Your task to perform on an android device: check google app version Image 0: 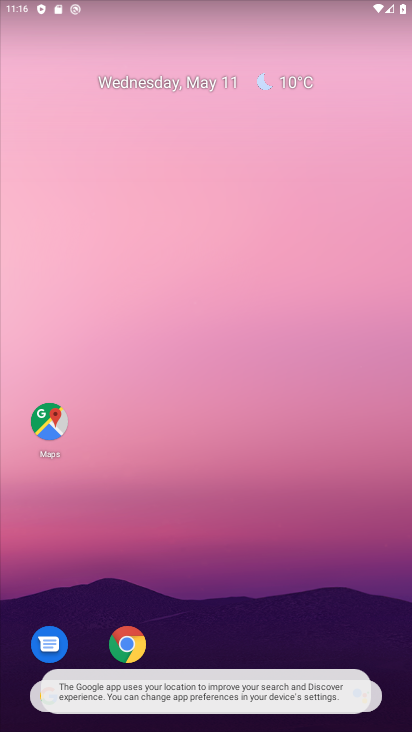
Step 0: drag from (259, 522) to (14, 365)
Your task to perform on an android device: check google app version Image 1: 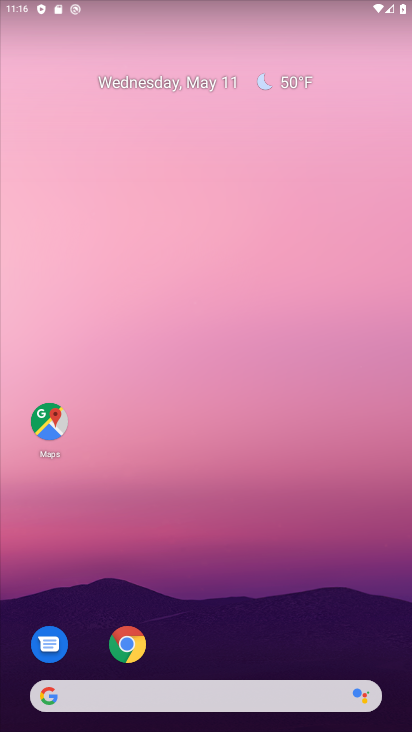
Step 1: drag from (380, 543) to (335, 245)
Your task to perform on an android device: check google app version Image 2: 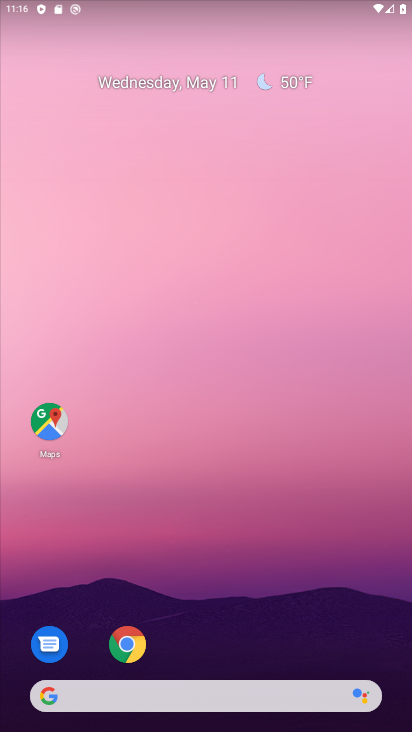
Step 2: drag from (241, 494) to (42, 109)
Your task to perform on an android device: check google app version Image 3: 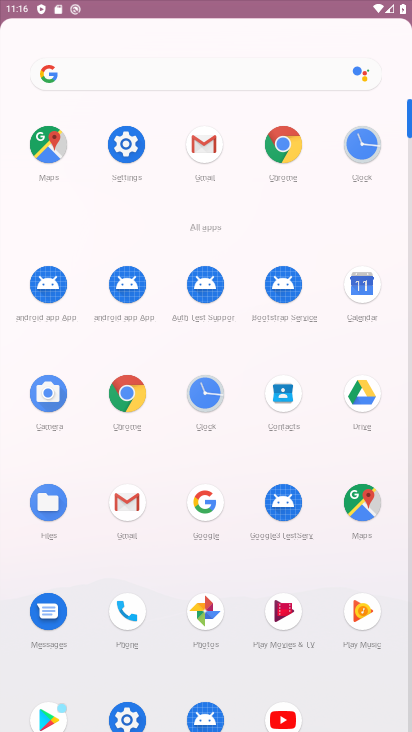
Step 3: drag from (354, 370) to (352, 126)
Your task to perform on an android device: check google app version Image 4: 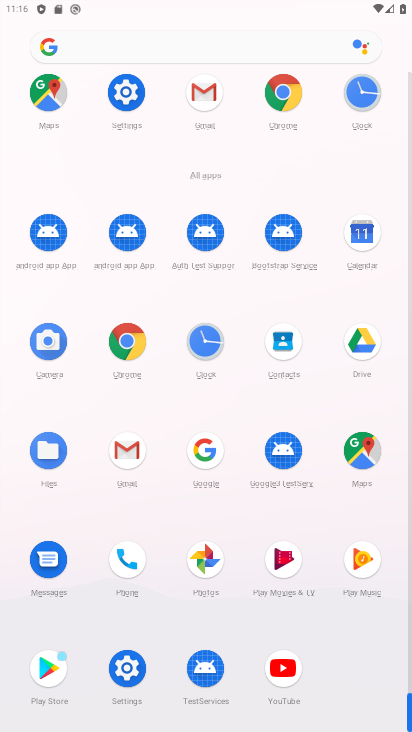
Step 4: click (208, 461)
Your task to perform on an android device: check google app version Image 5: 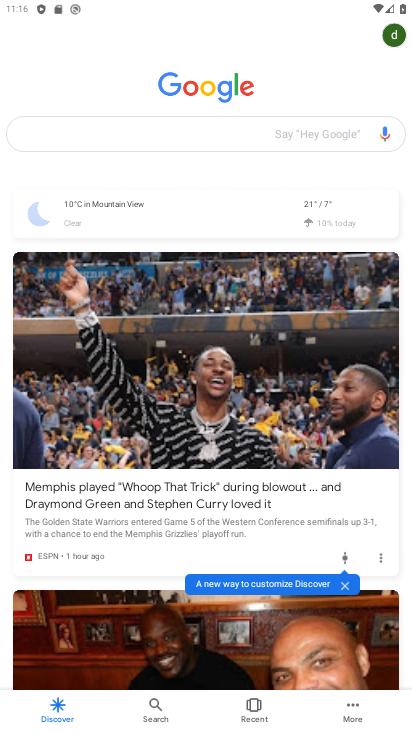
Step 5: click (358, 713)
Your task to perform on an android device: check google app version Image 6: 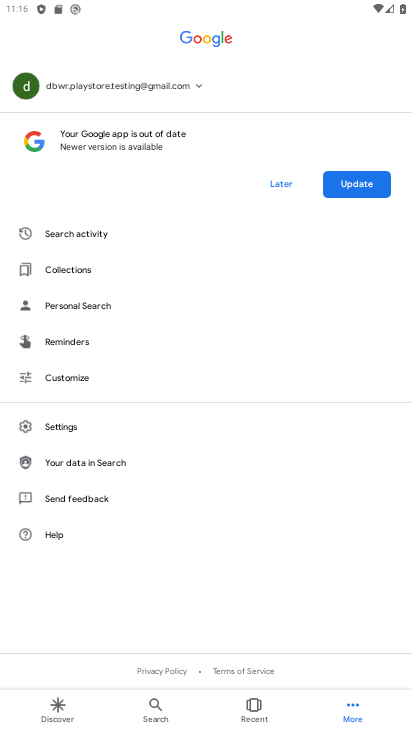
Step 6: click (78, 421)
Your task to perform on an android device: check google app version Image 7: 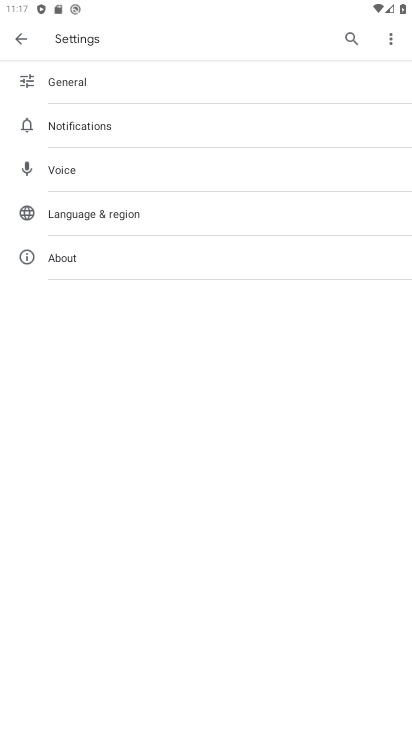
Step 7: click (118, 258)
Your task to perform on an android device: check google app version Image 8: 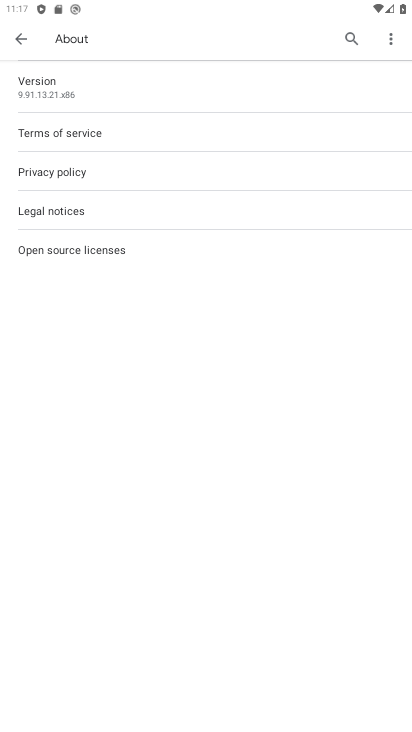
Step 8: task complete